Your task to perform on an android device: open device folders in google photos Image 0: 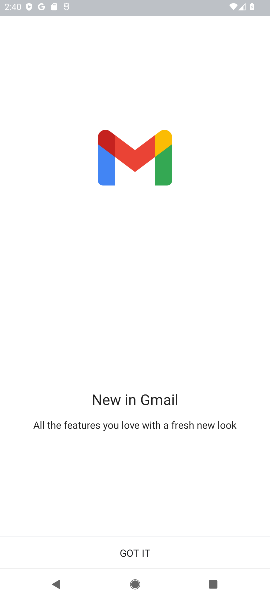
Step 0: press home button
Your task to perform on an android device: open device folders in google photos Image 1: 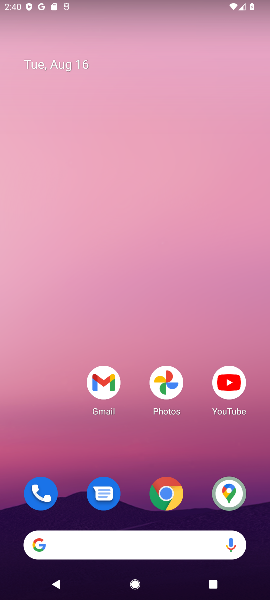
Step 1: drag from (58, 445) to (61, 87)
Your task to perform on an android device: open device folders in google photos Image 2: 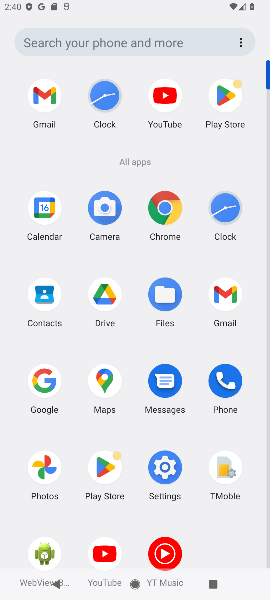
Step 2: click (42, 474)
Your task to perform on an android device: open device folders in google photos Image 3: 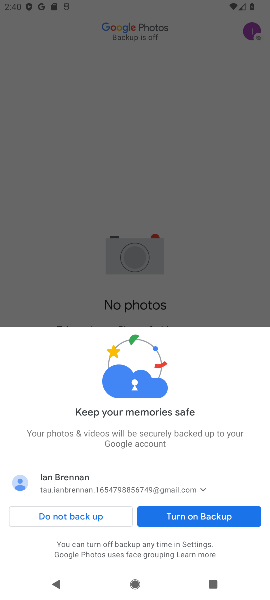
Step 3: click (73, 521)
Your task to perform on an android device: open device folders in google photos Image 4: 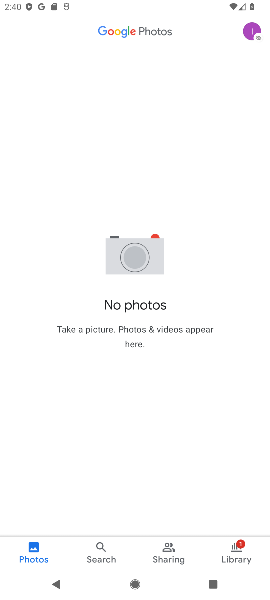
Step 4: click (249, 24)
Your task to perform on an android device: open device folders in google photos Image 5: 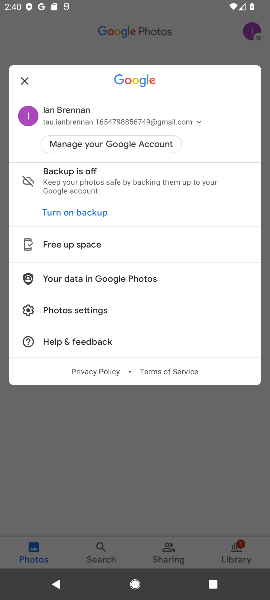
Step 5: task complete